Your task to perform on an android device: Search for "razer thresher" on costco, select the first entry, and add it to the cart. Image 0: 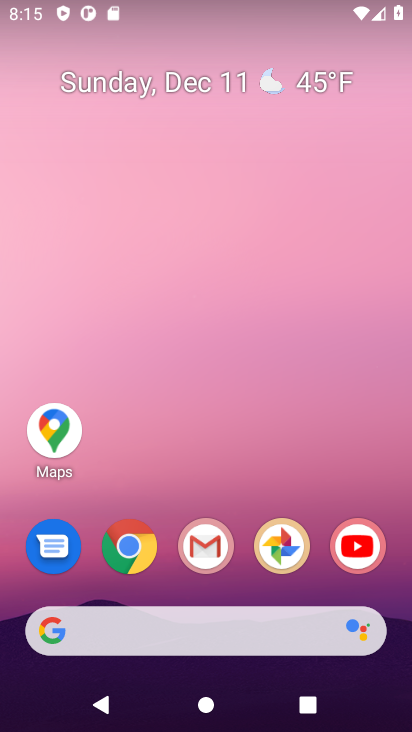
Step 0: click (129, 549)
Your task to perform on an android device: Search for "razer thresher" on costco, select the first entry, and add it to the cart. Image 1: 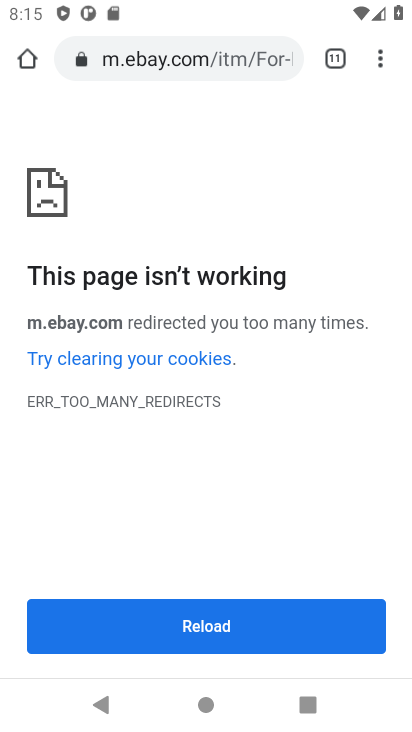
Step 1: click (161, 66)
Your task to perform on an android device: Search for "razer thresher" on costco, select the first entry, and add it to the cart. Image 2: 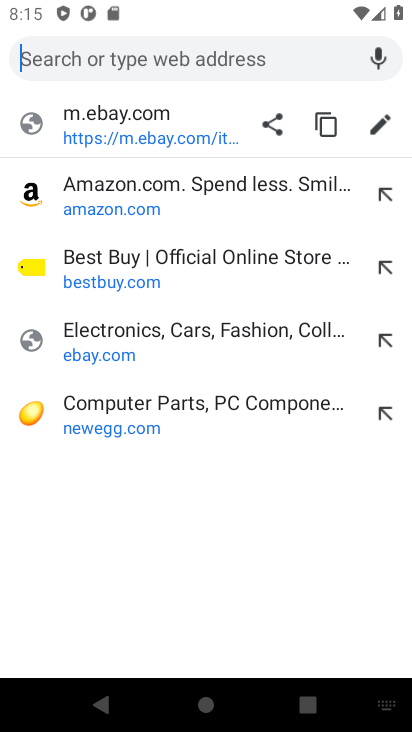
Step 2: type "costco.com"
Your task to perform on an android device: Search for "razer thresher" on costco, select the first entry, and add it to the cart. Image 3: 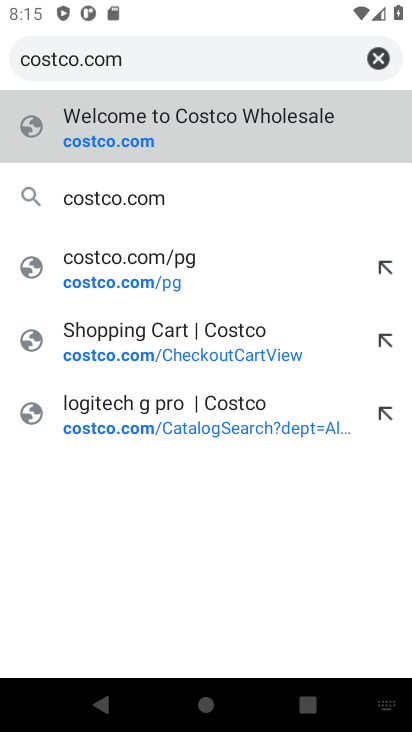
Step 3: click (120, 145)
Your task to perform on an android device: Search for "razer thresher" on costco, select the first entry, and add it to the cart. Image 4: 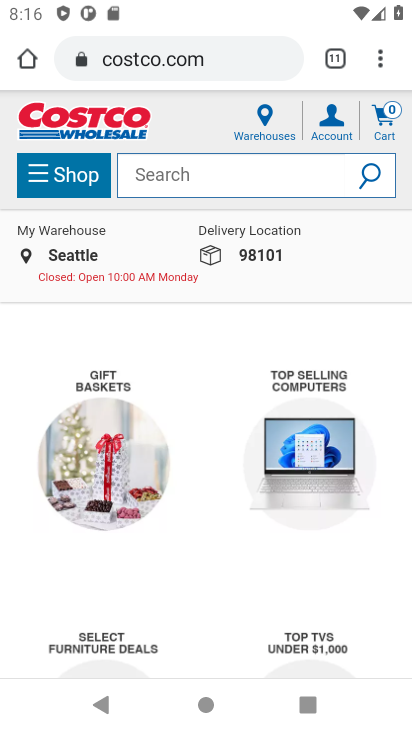
Step 4: click (180, 168)
Your task to perform on an android device: Search for "razer thresher" on costco, select the first entry, and add it to the cart. Image 5: 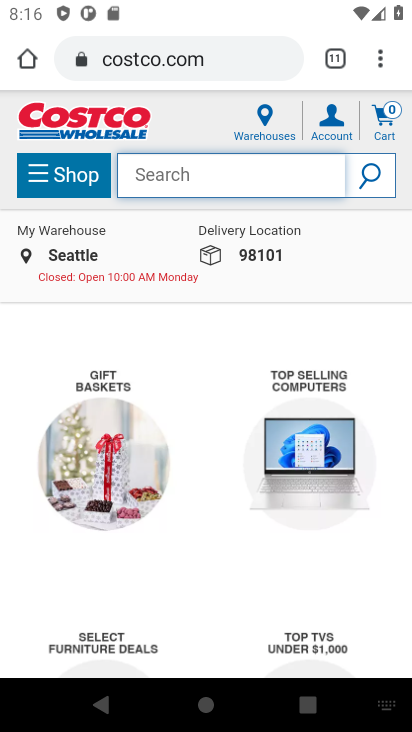
Step 5: type "razer thresher"
Your task to perform on an android device: Search for "razer thresher" on costco, select the first entry, and add it to the cart. Image 6: 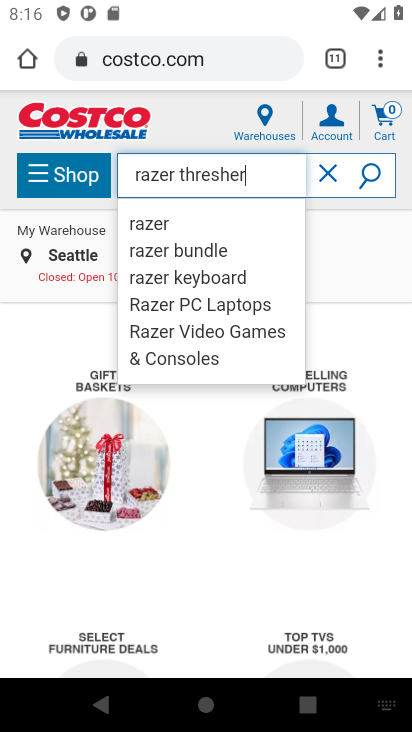
Step 6: click (376, 181)
Your task to perform on an android device: Search for "razer thresher" on costco, select the first entry, and add it to the cart. Image 7: 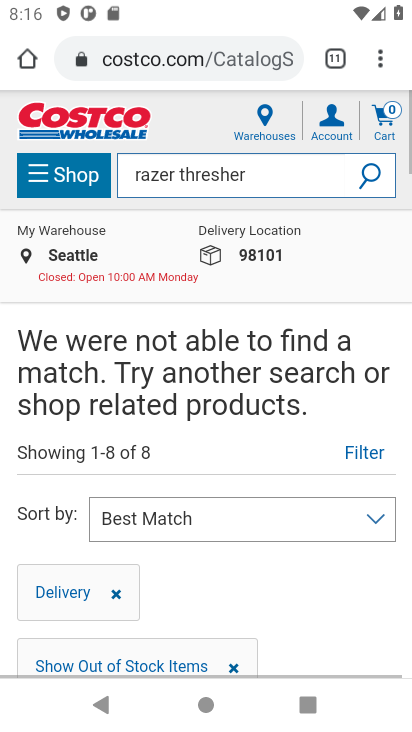
Step 7: task complete